Your task to perform on an android device: Open internet settings Image 0: 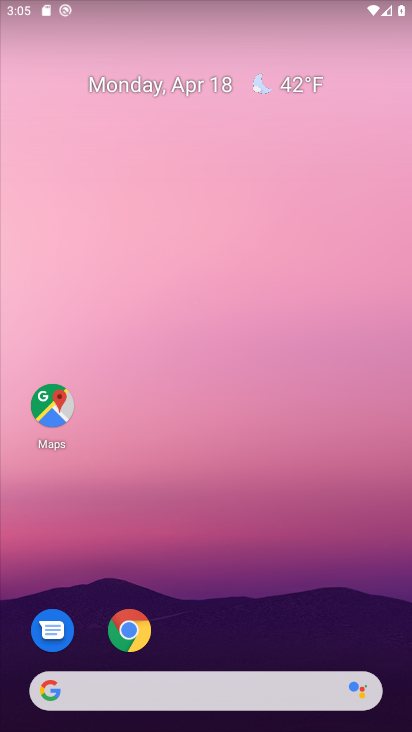
Step 0: click (190, 155)
Your task to perform on an android device: Open internet settings Image 1: 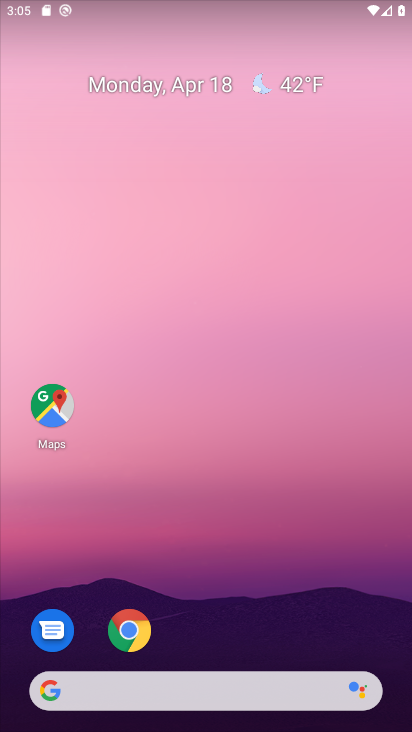
Step 1: drag from (229, 488) to (256, 277)
Your task to perform on an android device: Open internet settings Image 2: 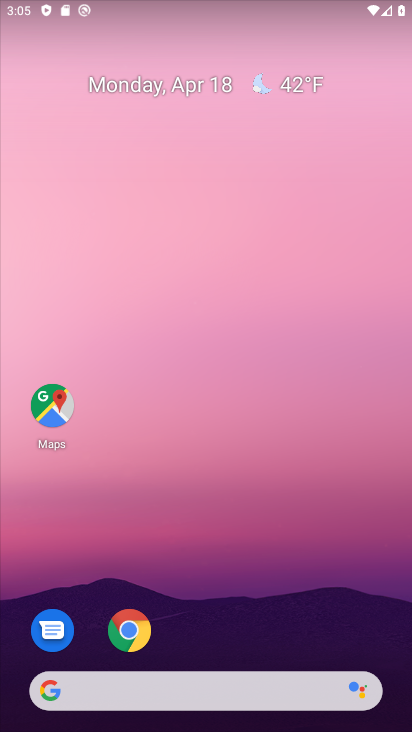
Step 2: drag from (243, 456) to (275, 217)
Your task to perform on an android device: Open internet settings Image 3: 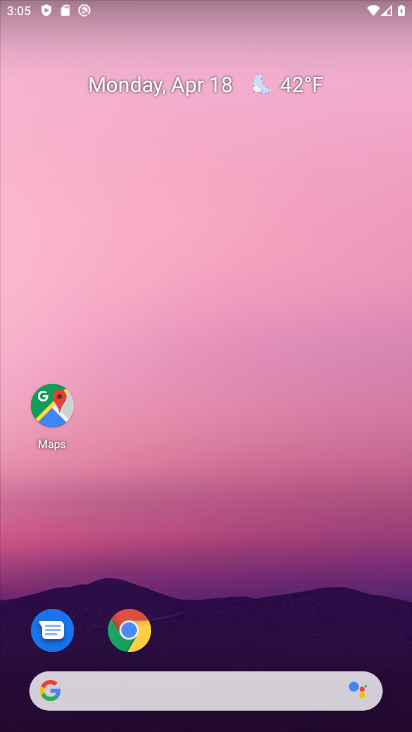
Step 3: drag from (256, 275) to (253, 220)
Your task to perform on an android device: Open internet settings Image 4: 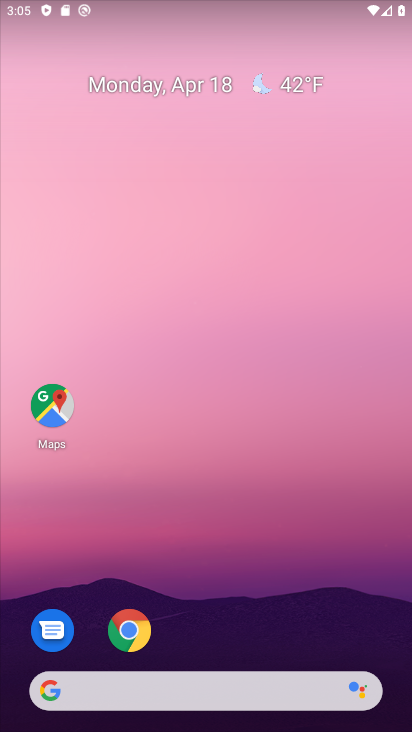
Step 4: drag from (292, 213) to (296, 112)
Your task to perform on an android device: Open internet settings Image 5: 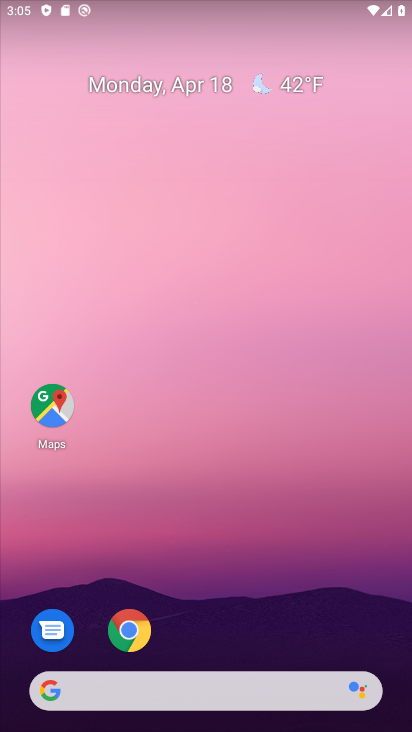
Step 5: drag from (245, 247) to (237, 188)
Your task to perform on an android device: Open internet settings Image 6: 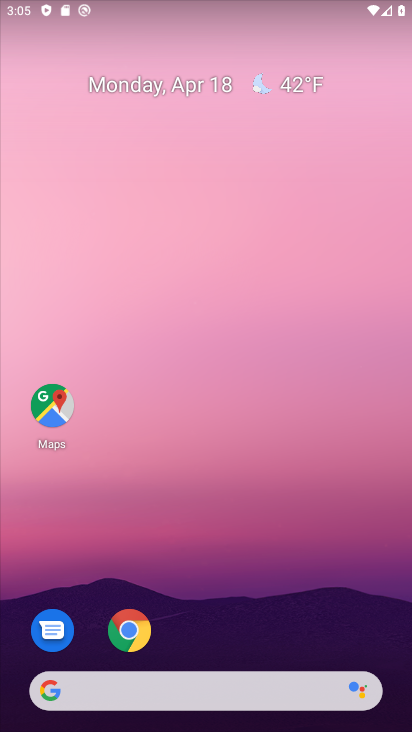
Step 6: click (197, 111)
Your task to perform on an android device: Open internet settings Image 7: 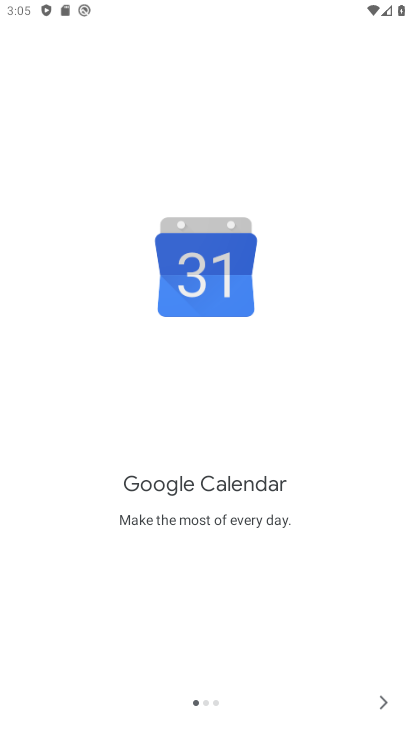
Step 7: press home button
Your task to perform on an android device: Open internet settings Image 8: 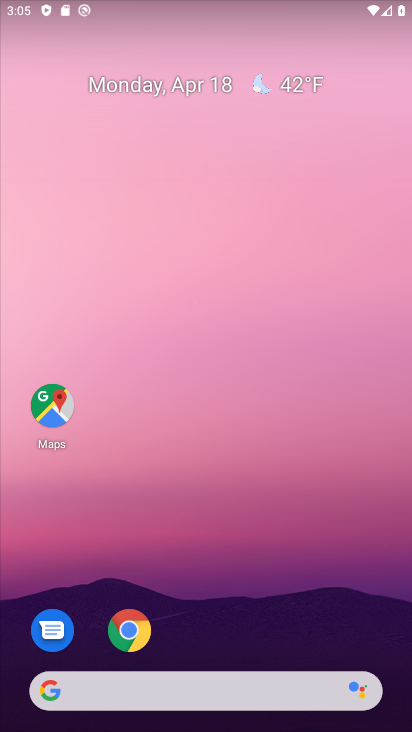
Step 8: drag from (238, 618) to (261, 83)
Your task to perform on an android device: Open internet settings Image 9: 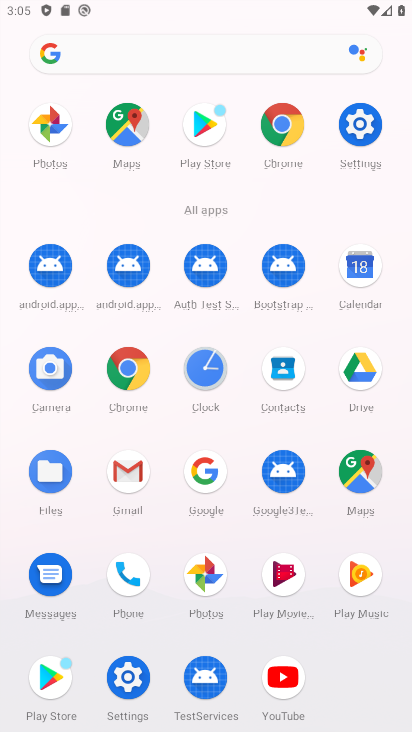
Step 9: click (354, 113)
Your task to perform on an android device: Open internet settings Image 10: 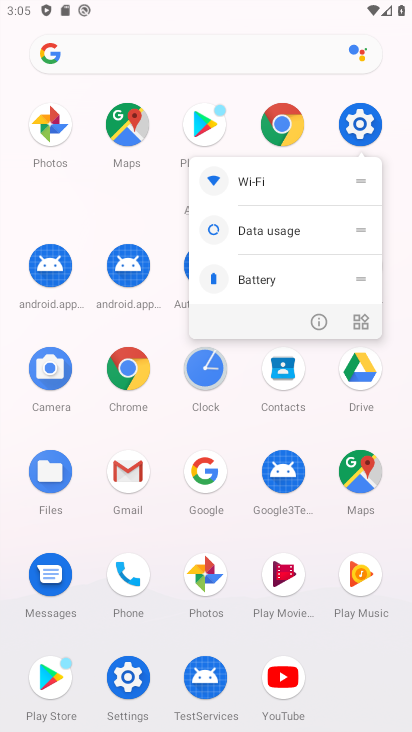
Step 10: click (353, 115)
Your task to perform on an android device: Open internet settings Image 11: 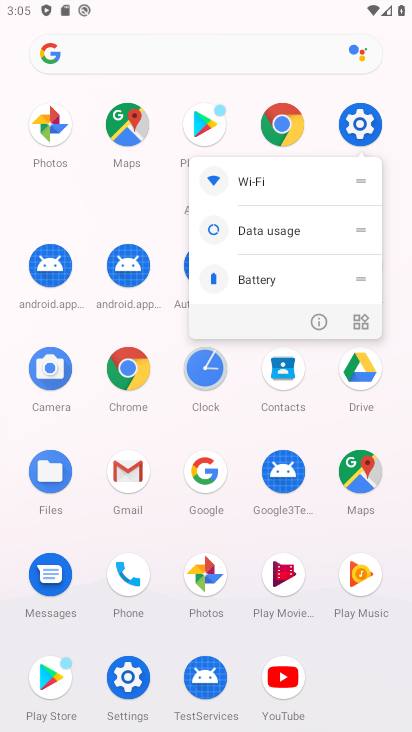
Step 11: click (351, 116)
Your task to perform on an android device: Open internet settings Image 12: 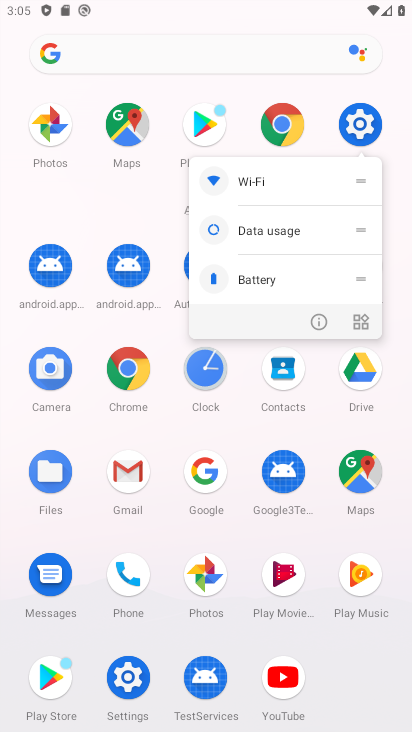
Step 12: click (349, 126)
Your task to perform on an android device: Open internet settings Image 13: 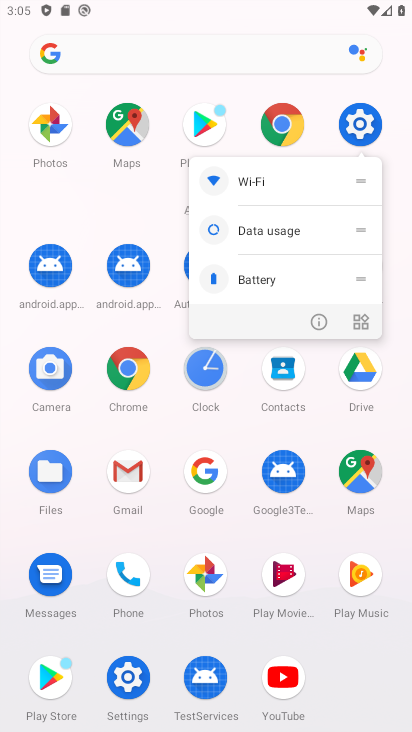
Step 13: click (349, 126)
Your task to perform on an android device: Open internet settings Image 14: 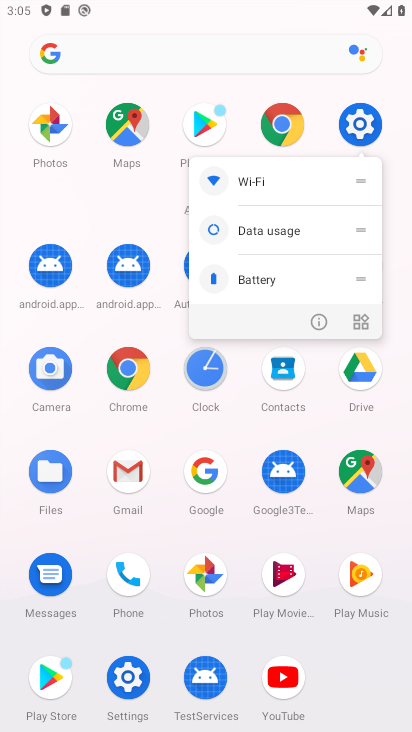
Step 14: click (108, 673)
Your task to perform on an android device: Open internet settings Image 15: 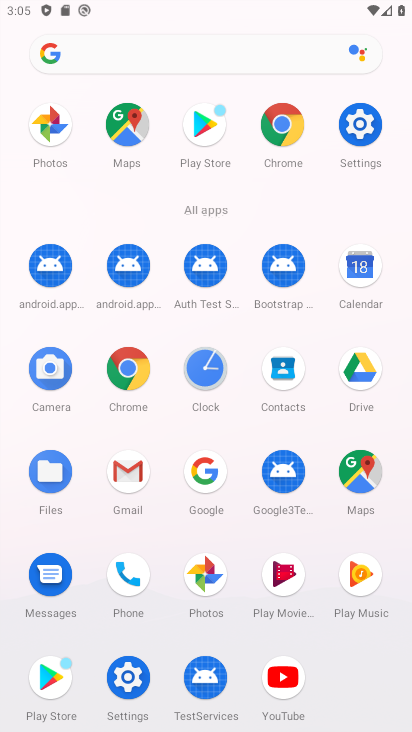
Step 15: click (119, 674)
Your task to perform on an android device: Open internet settings Image 16: 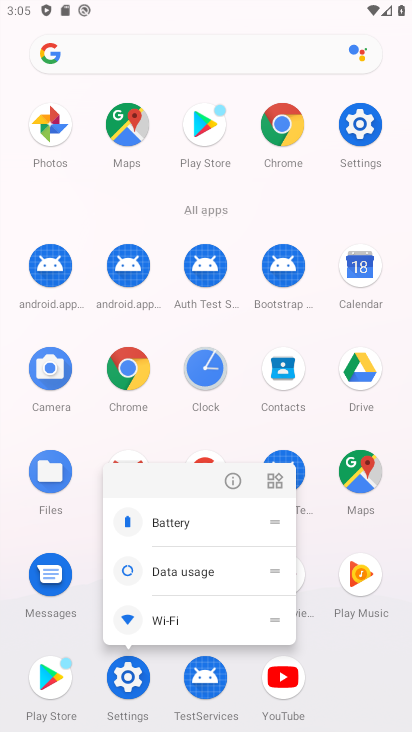
Step 16: click (119, 674)
Your task to perform on an android device: Open internet settings Image 17: 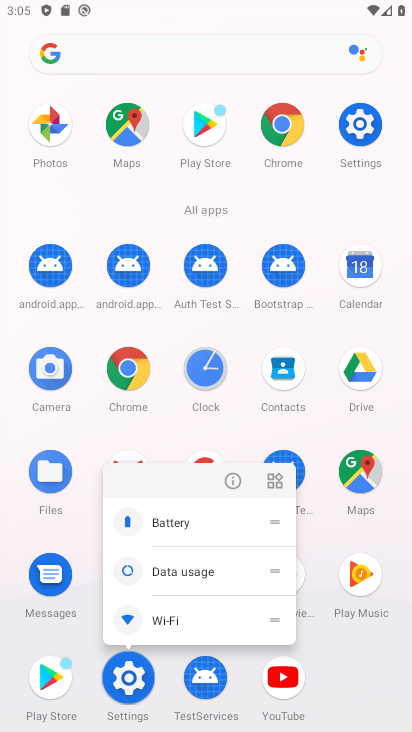
Step 17: click (119, 673)
Your task to perform on an android device: Open internet settings Image 18: 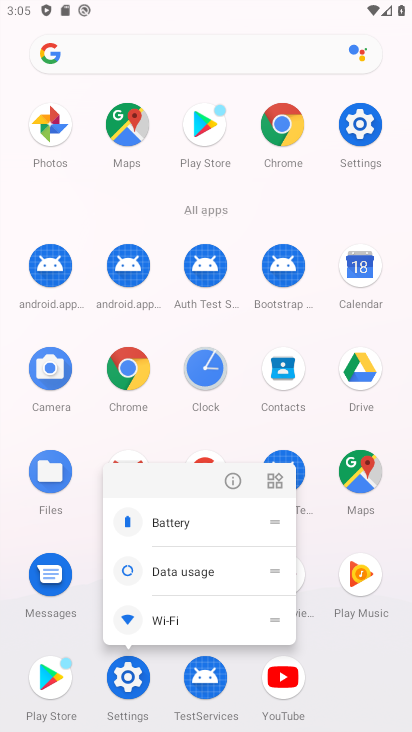
Step 18: click (115, 668)
Your task to perform on an android device: Open internet settings Image 19: 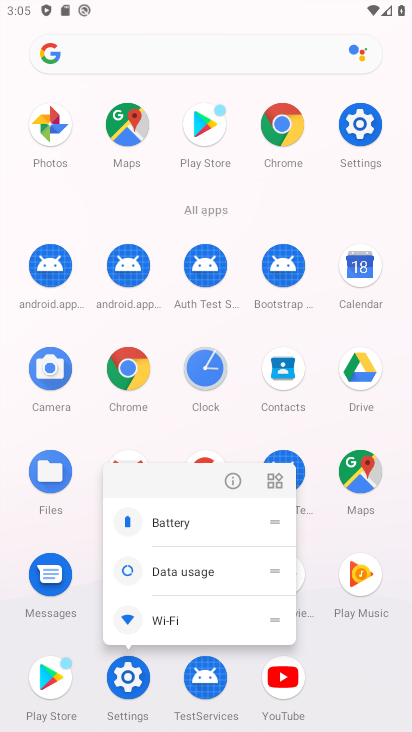
Step 19: click (115, 668)
Your task to perform on an android device: Open internet settings Image 20: 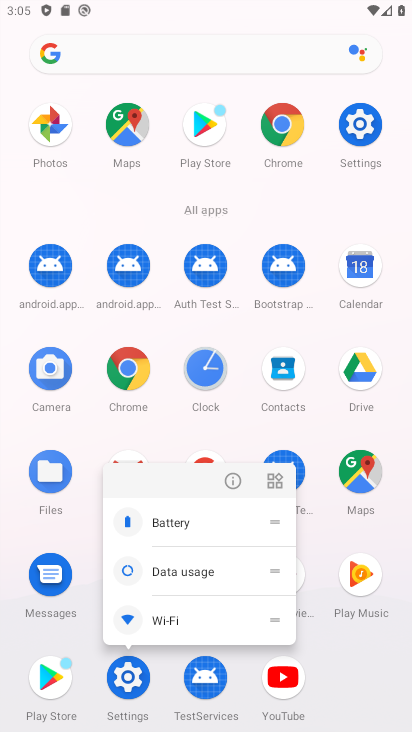
Step 20: click (123, 674)
Your task to perform on an android device: Open internet settings Image 21: 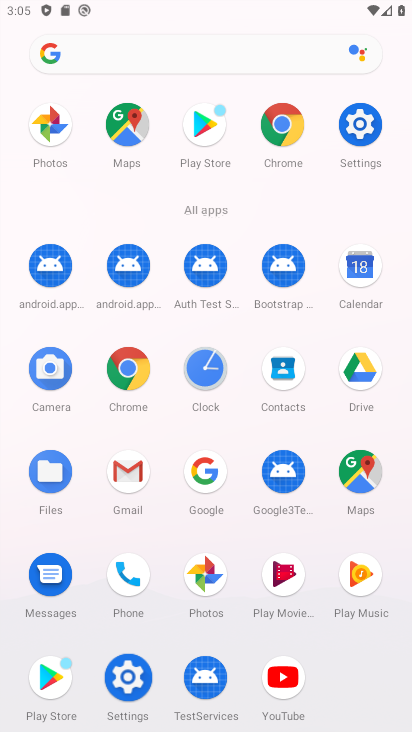
Step 21: click (126, 647)
Your task to perform on an android device: Open internet settings Image 22: 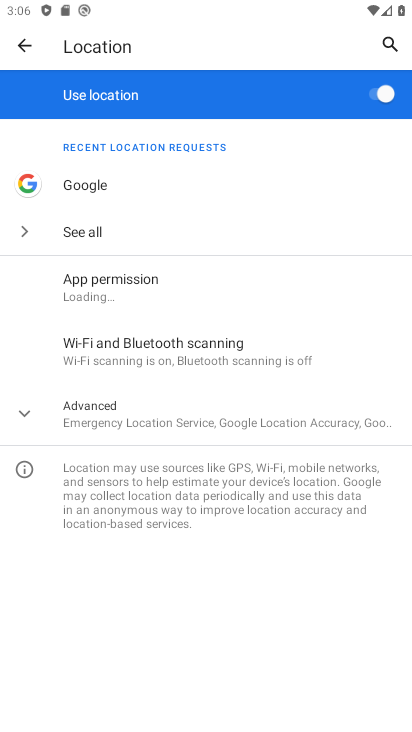
Step 22: click (31, 35)
Your task to perform on an android device: Open internet settings Image 23: 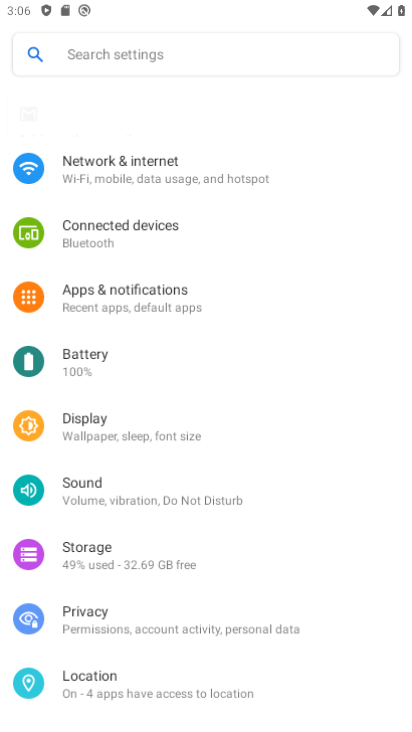
Step 23: click (17, 48)
Your task to perform on an android device: Open internet settings Image 24: 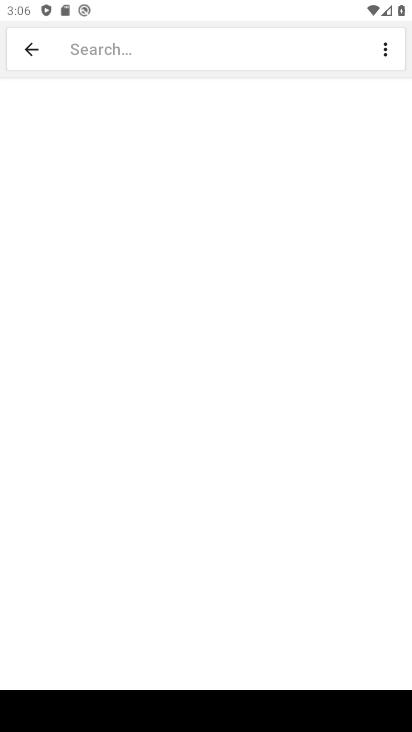
Step 24: click (42, 50)
Your task to perform on an android device: Open internet settings Image 25: 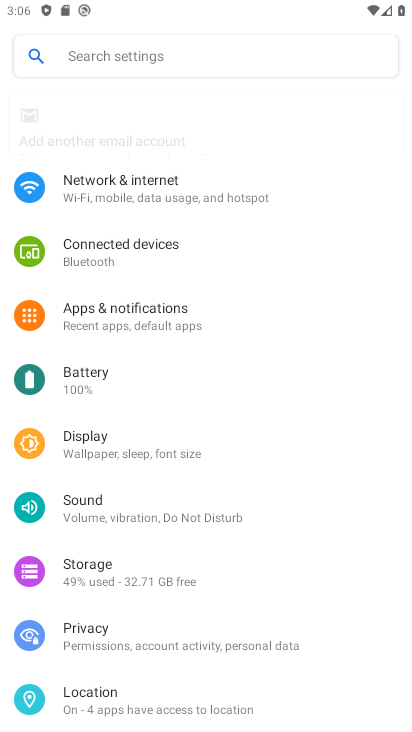
Step 25: click (154, 131)
Your task to perform on an android device: Open internet settings Image 26: 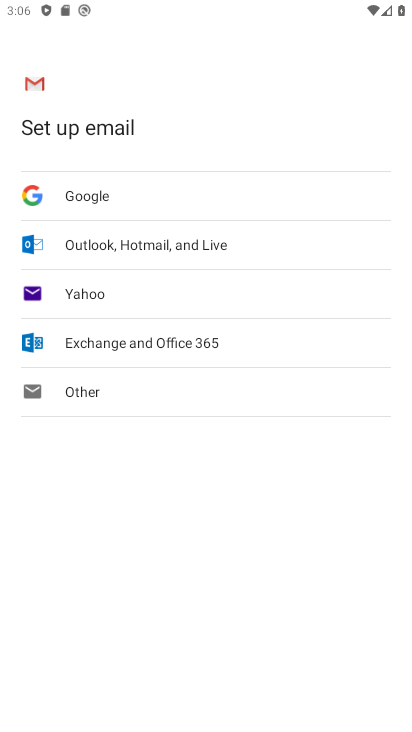
Step 26: press back button
Your task to perform on an android device: Open internet settings Image 27: 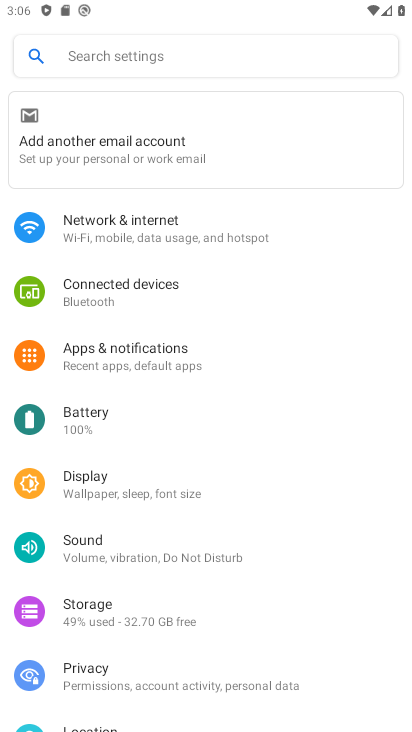
Step 27: click (115, 248)
Your task to perform on an android device: Open internet settings Image 28: 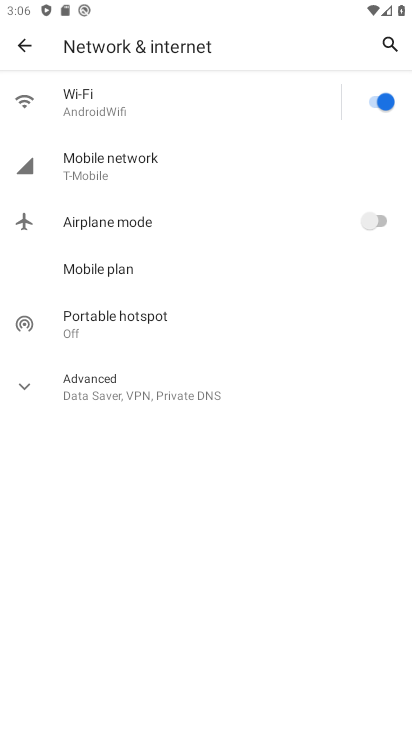
Step 28: task complete